Your task to perform on an android device: Open the calendar app, open the side menu, and click the "Day" option Image 0: 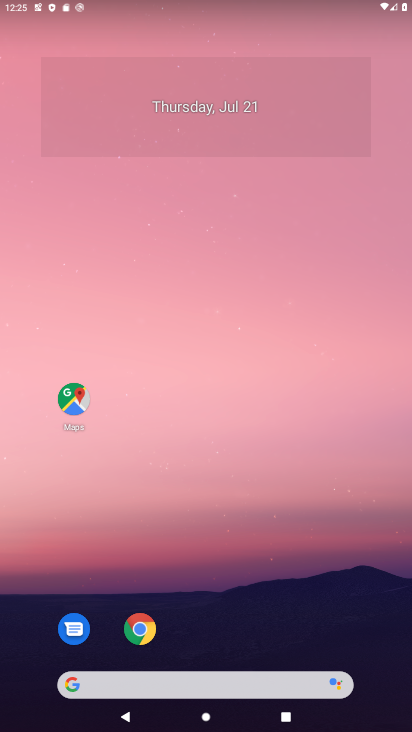
Step 0: drag from (267, 407) to (245, 40)
Your task to perform on an android device: Open the calendar app, open the side menu, and click the "Day" option Image 1: 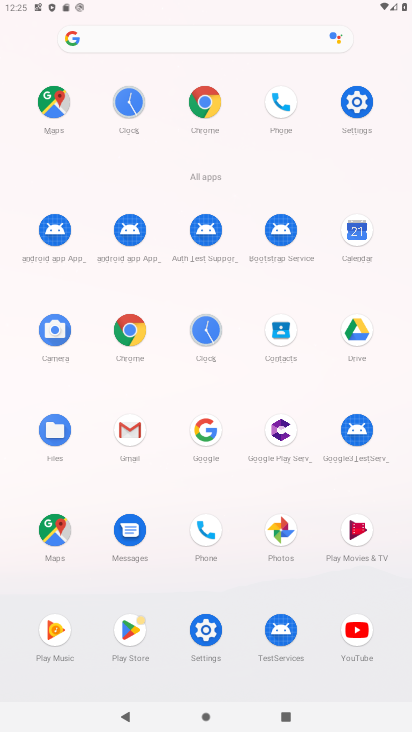
Step 1: click (356, 232)
Your task to perform on an android device: Open the calendar app, open the side menu, and click the "Day" option Image 2: 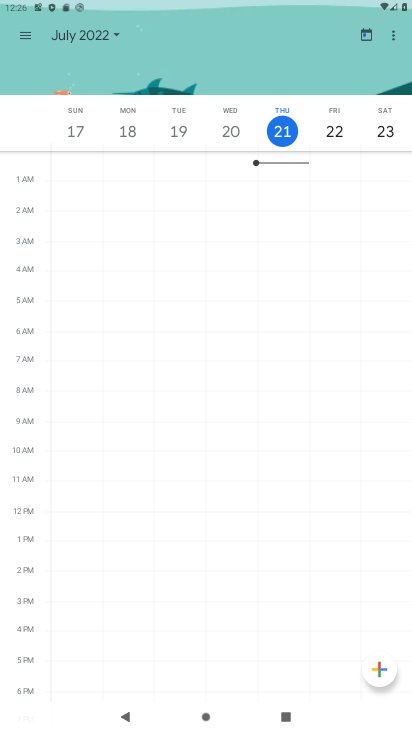
Step 2: click (28, 35)
Your task to perform on an android device: Open the calendar app, open the side menu, and click the "Day" option Image 3: 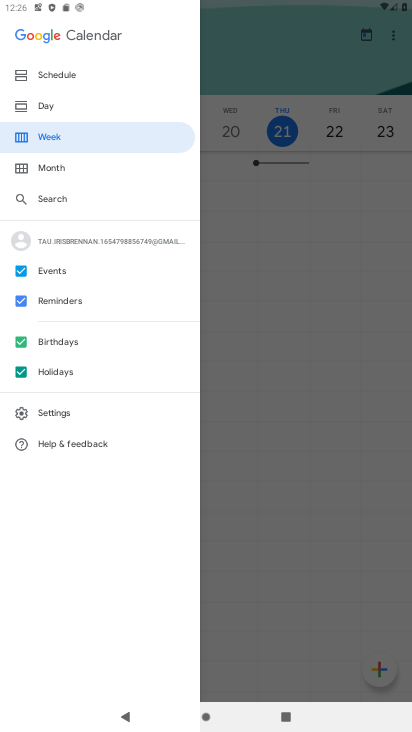
Step 3: click (59, 105)
Your task to perform on an android device: Open the calendar app, open the side menu, and click the "Day" option Image 4: 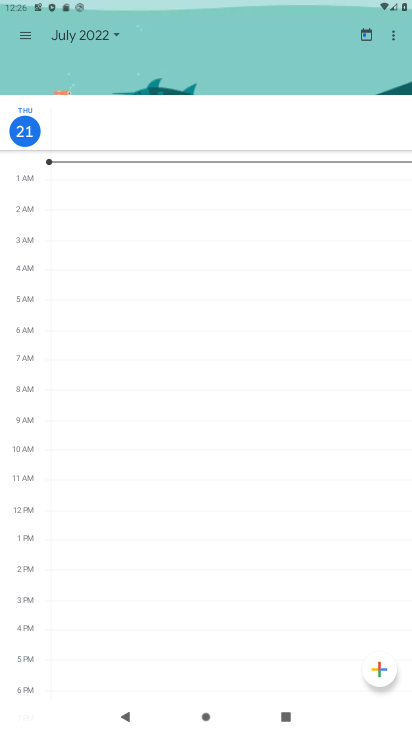
Step 4: task complete